Your task to perform on an android device: toggle notification dots Image 0: 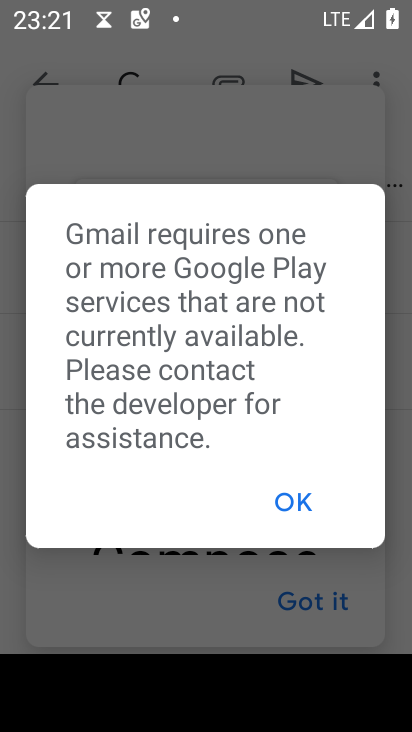
Step 0: press home button
Your task to perform on an android device: toggle notification dots Image 1: 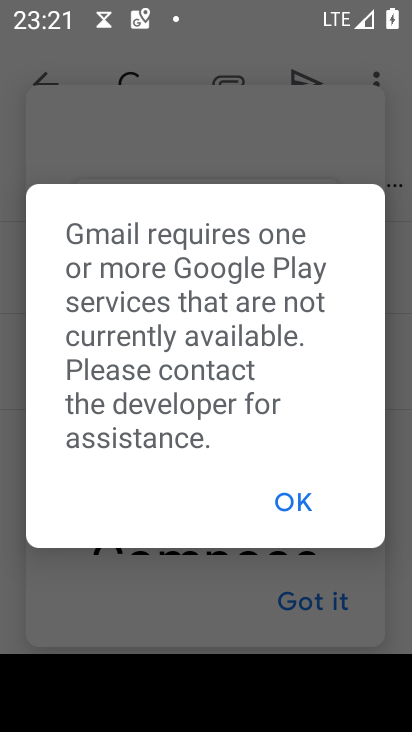
Step 1: press home button
Your task to perform on an android device: toggle notification dots Image 2: 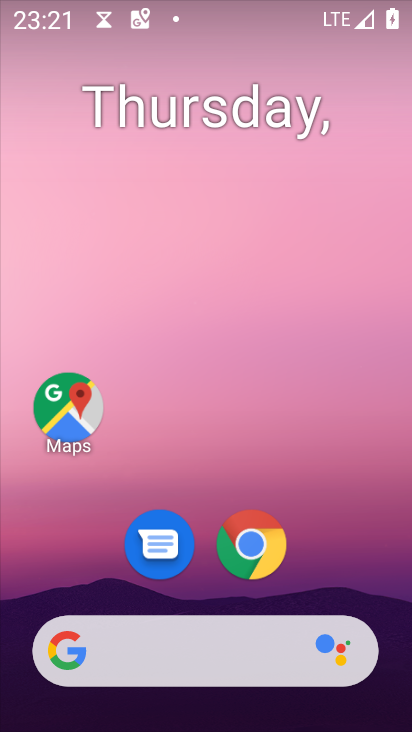
Step 2: click (264, 164)
Your task to perform on an android device: toggle notification dots Image 3: 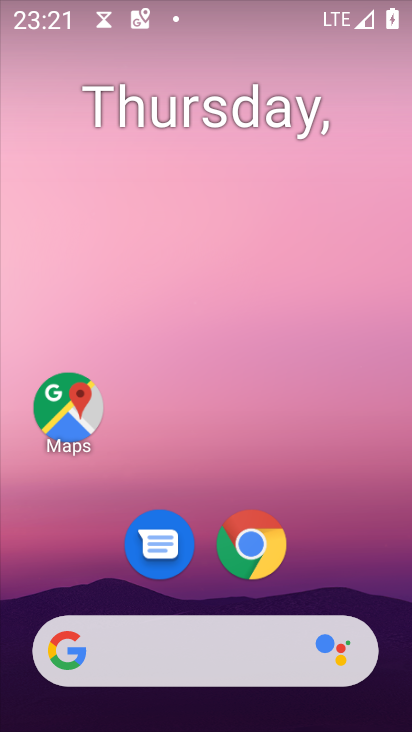
Step 3: drag from (302, 561) to (289, 194)
Your task to perform on an android device: toggle notification dots Image 4: 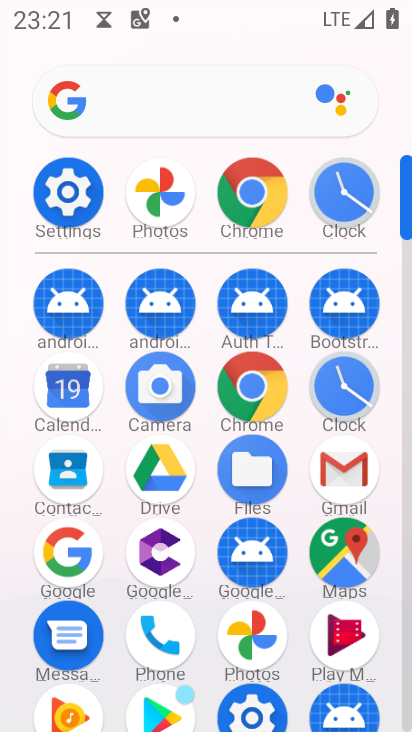
Step 4: click (61, 192)
Your task to perform on an android device: toggle notification dots Image 5: 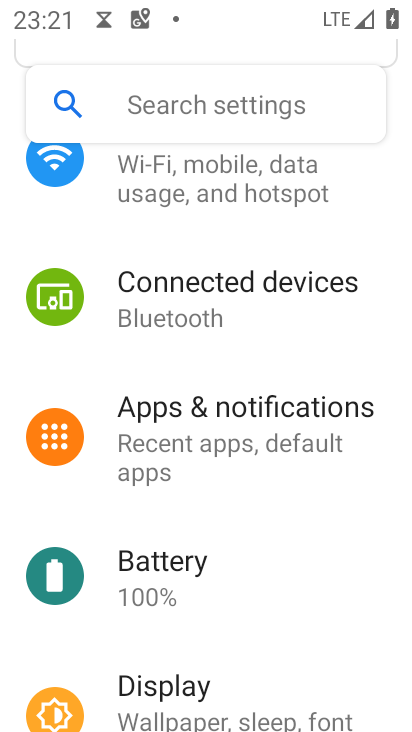
Step 5: click (246, 428)
Your task to perform on an android device: toggle notification dots Image 6: 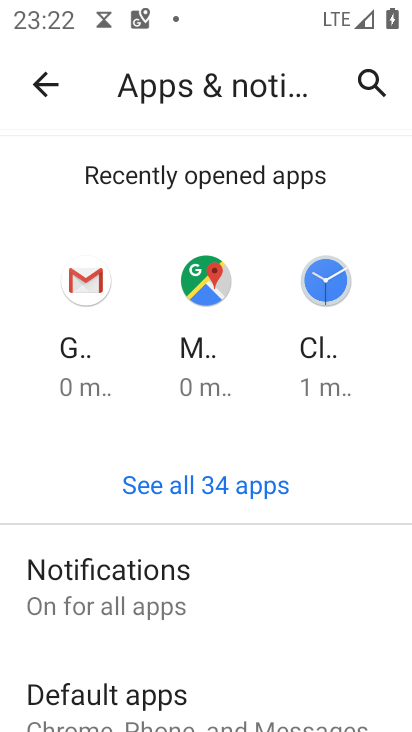
Step 6: drag from (172, 671) to (185, 516)
Your task to perform on an android device: toggle notification dots Image 7: 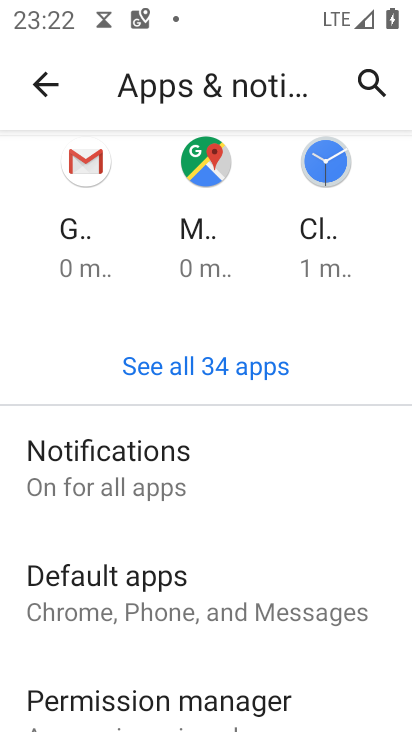
Step 7: click (121, 482)
Your task to perform on an android device: toggle notification dots Image 8: 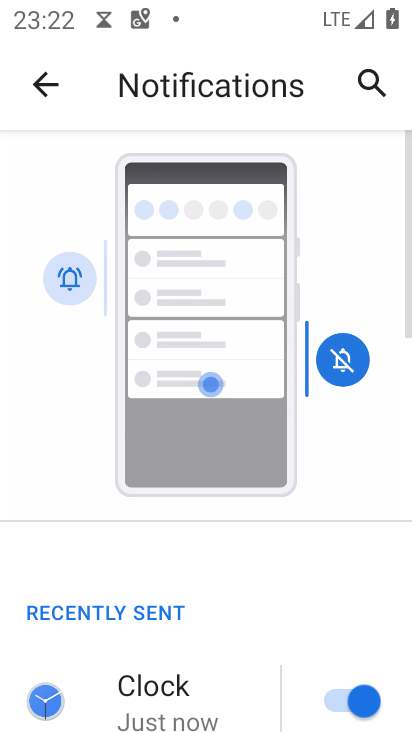
Step 8: drag from (159, 677) to (206, 307)
Your task to perform on an android device: toggle notification dots Image 9: 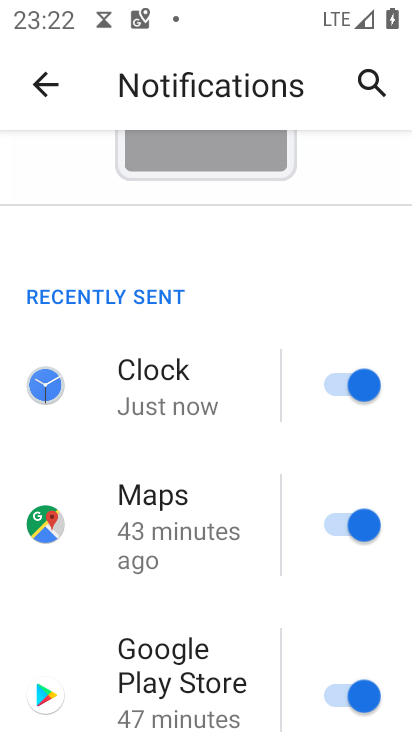
Step 9: drag from (156, 700) to (193, 315)
Your task to perform on an android device: toggle notification dots Image 10: 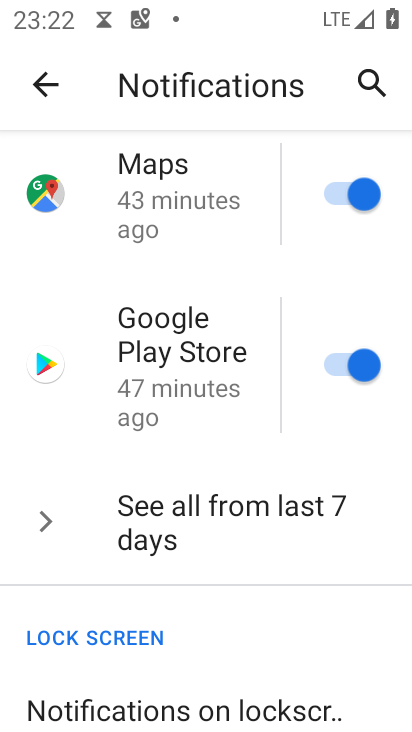
Step 10: drag from (164, 616) to (174, 163)
Your task to perform on an android device: toggle notification dots Image 11: 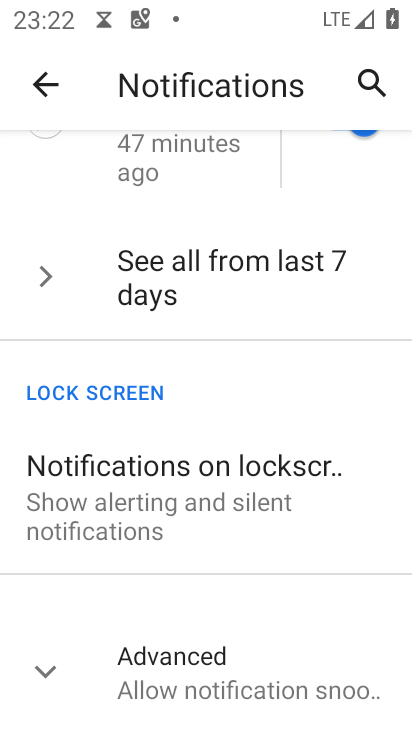
Step 11: drag from (185, 632) to (182, 281)
Your task to perform on an android device: toggle notification dots Image 12: 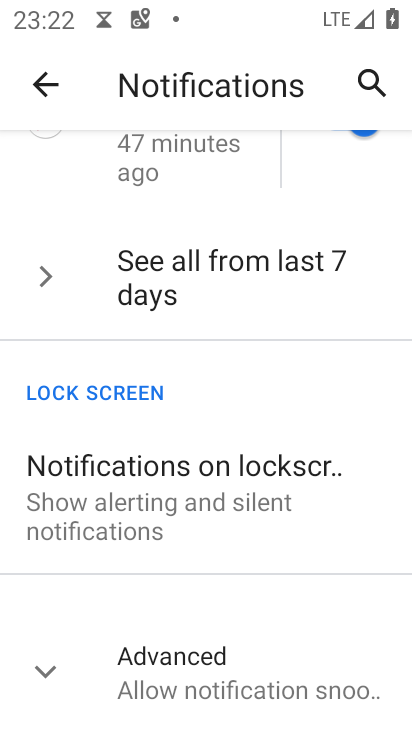
Step 12: click (174, 686)
Your task to perform on an android device: toggle notification dots Image 13: 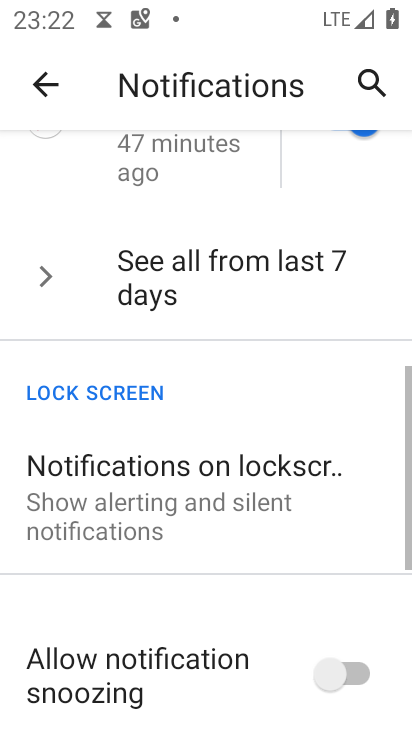
Step 13: drag from (176, 653) to (194, 254)
Your task to perform on an android device: toggle notification dots Image 14: 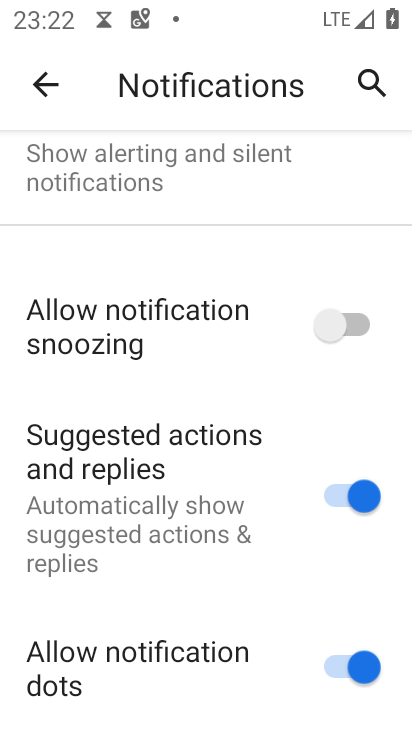
Step 14: click (348, 670)
Your task to perform on an android device: toggle notification dots Image 15: 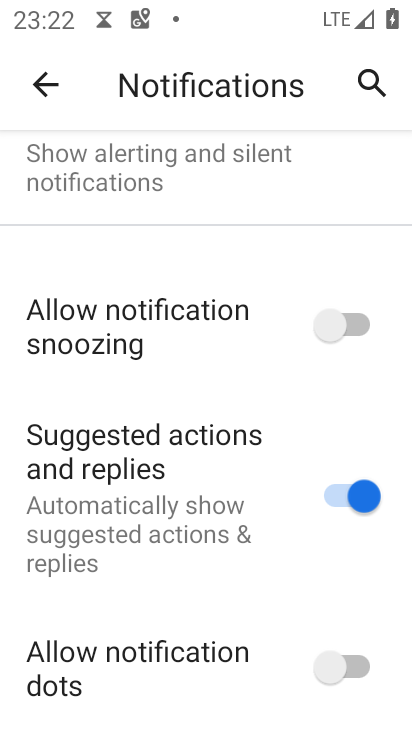
Step 15: task complete